Your task to perform on an android device: snooze an email in the gmail app Image 0: 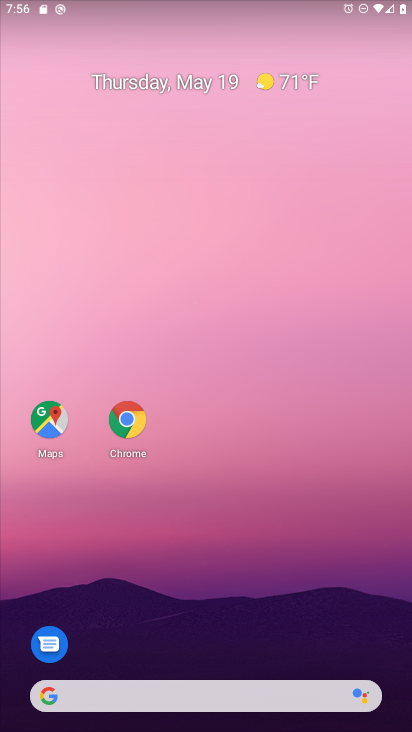
Step 0: drag from (202, 691) to (229, 334)
Your task to perform on an android device: snooze an email in the gmail app Image 1: 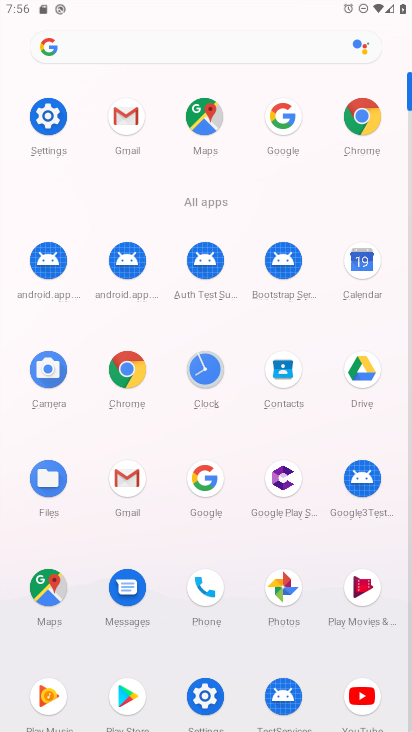
Step 1: click (123, 481)
Your task to perform on an android device: snooze an email in the gmail app Image 2: 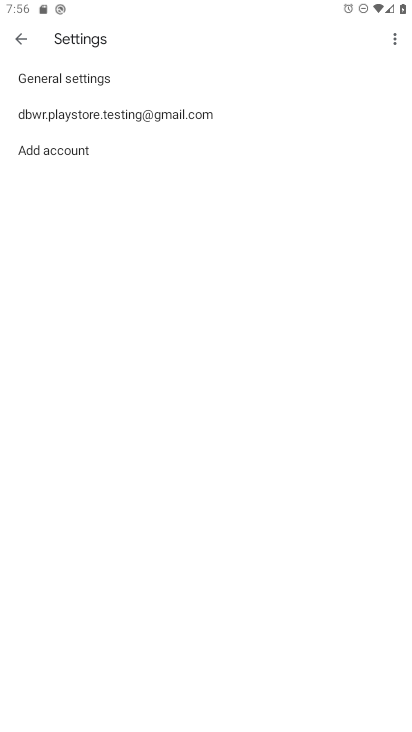
Step 2: click (21, 31)
Your task to perform on an android device: snooze an email in the gmail app Image 3: 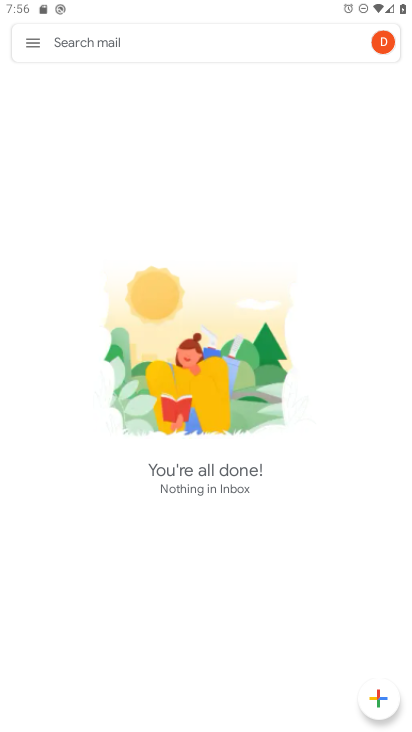
Step 3: click (32, 50)
Your task to perform on an android device: snooze an email in the gmail app Image 4: 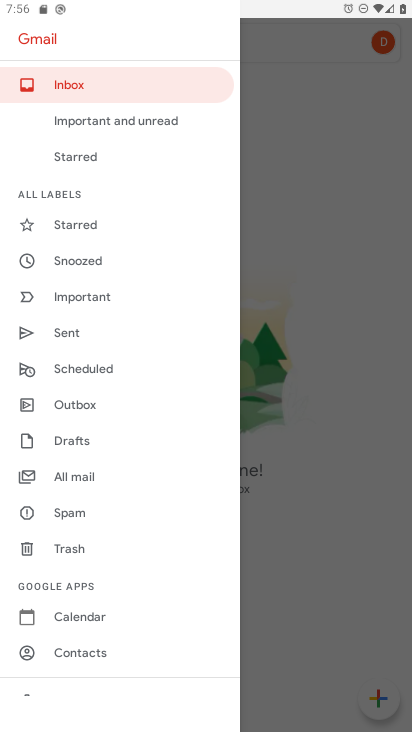
Step 4: click (69, 251)
Your task to perform on an android device: snooze an email in the gmail app Image 5: 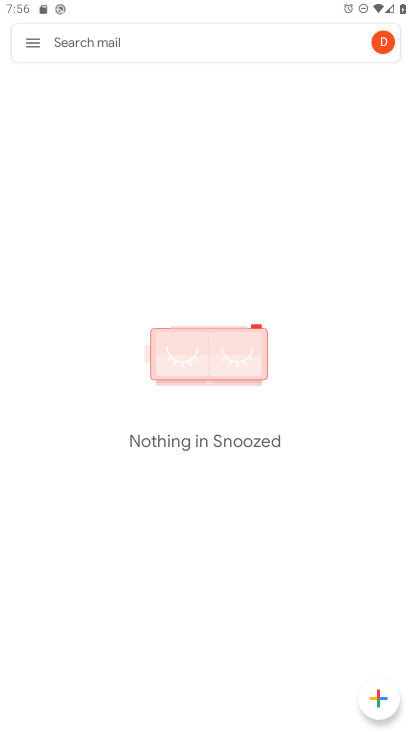
Step 5: task complete